Your task to perform on an android device: Open Reddit.com Image 0: 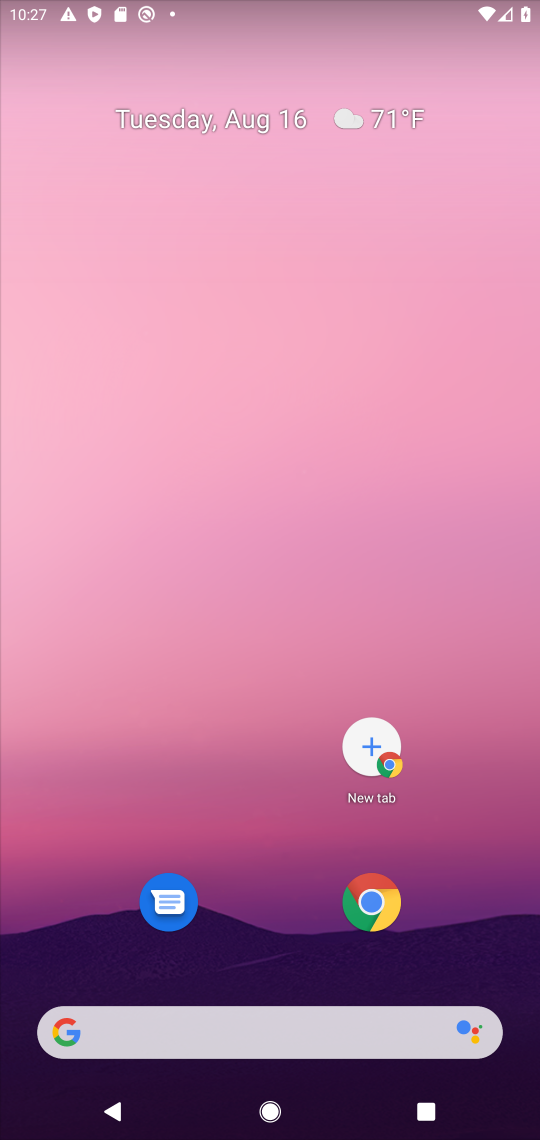
Step 0: drag from (331, 971) to (320, 64)
Your task to perform on an android device: Open Reddit.com Image 1: 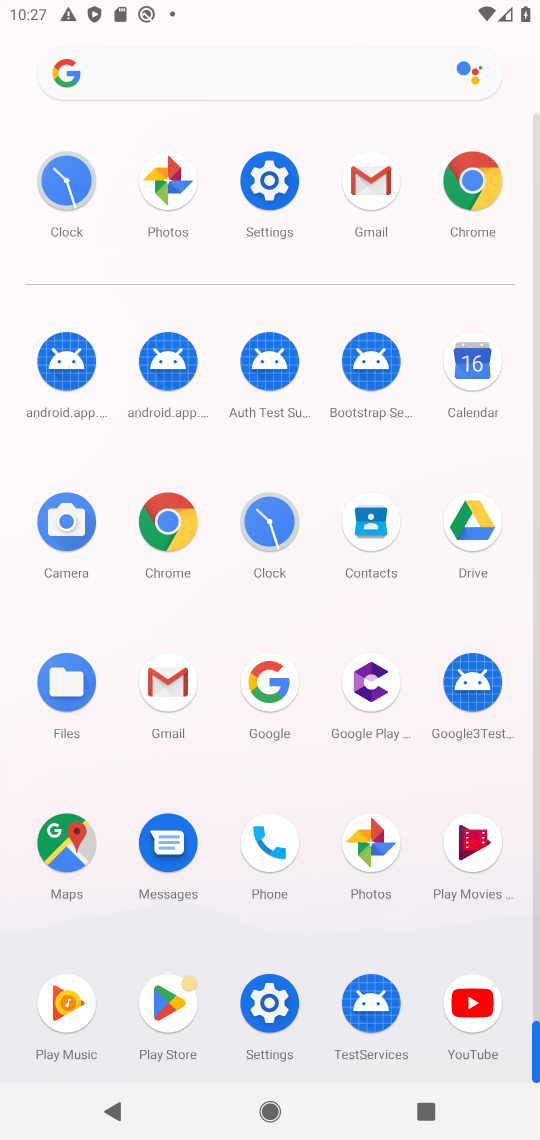
Step 1: click (154, 548)
Your task to perform on an android device: Open Reddit.com Image 2: 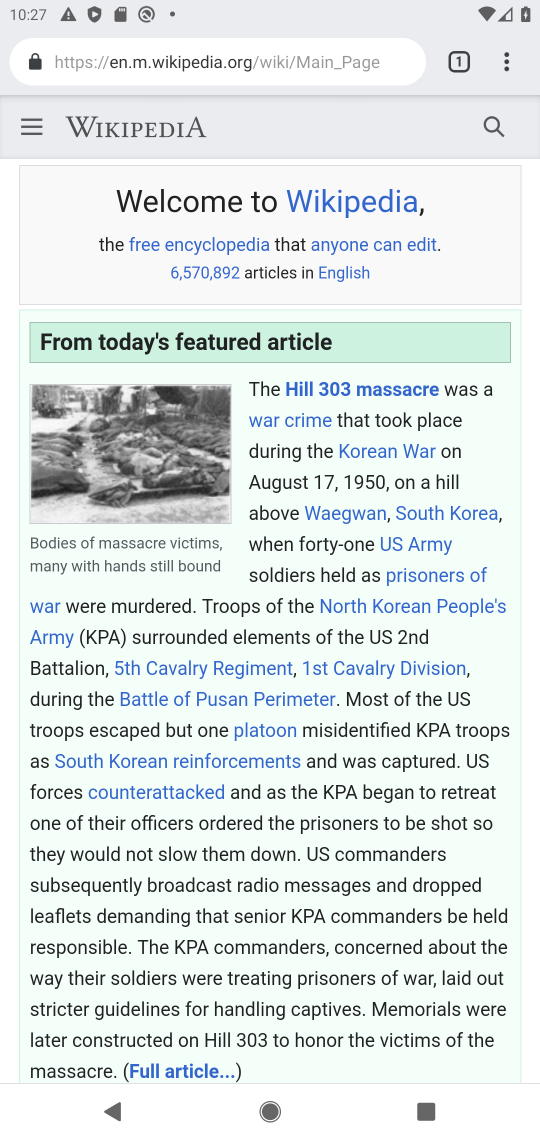
Step 2: click (363, 78)
Your task to perform on an android device: Open Reddit.com Image 3: 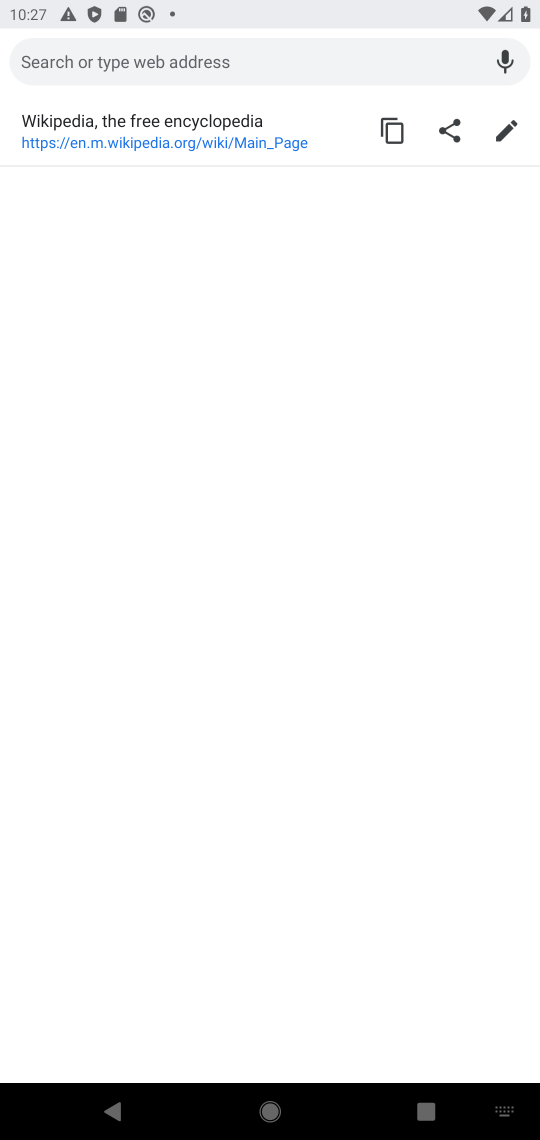
Step 3: click (312, 61)
Your task to perform on an android device: Open Reddit.com Image 4: 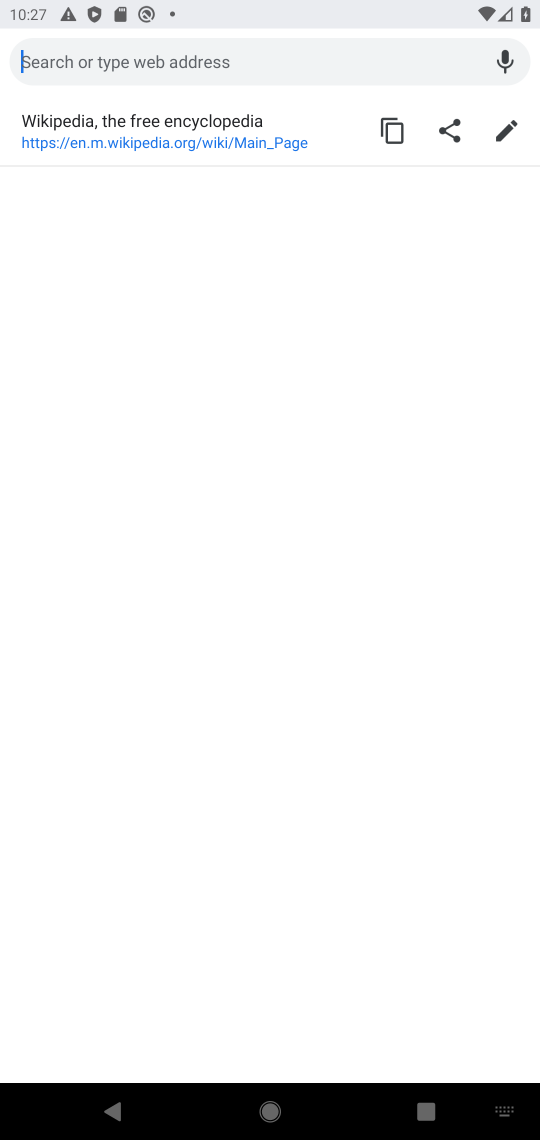
Step 4: click (415, 57)
Your task to perform on an android device: Open Reddit.com Image 5: 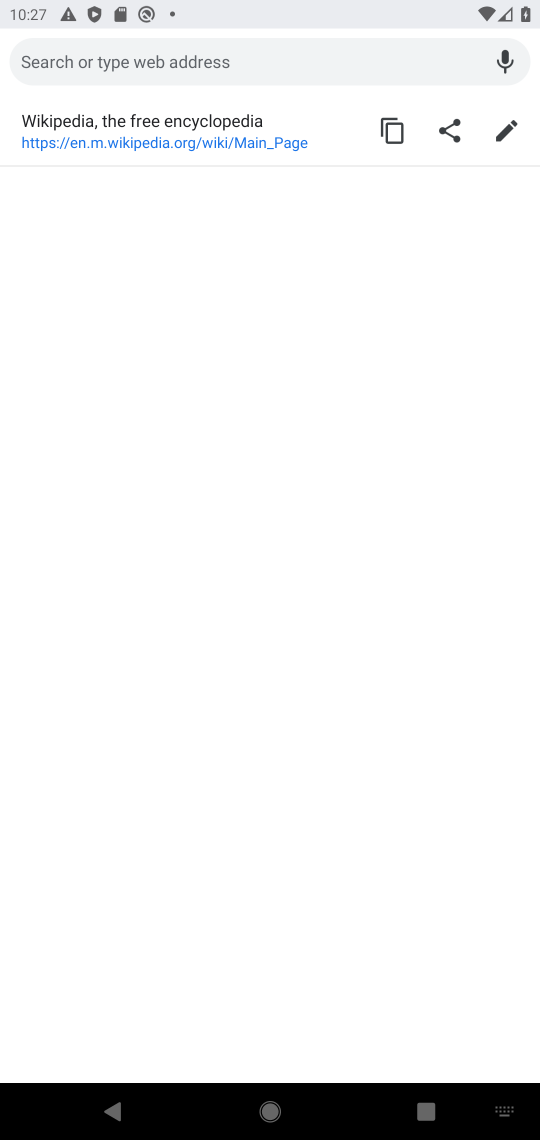
Step 5: click (162, 59)
Your task to perform on an android device: Open Reddit.com Image 6: 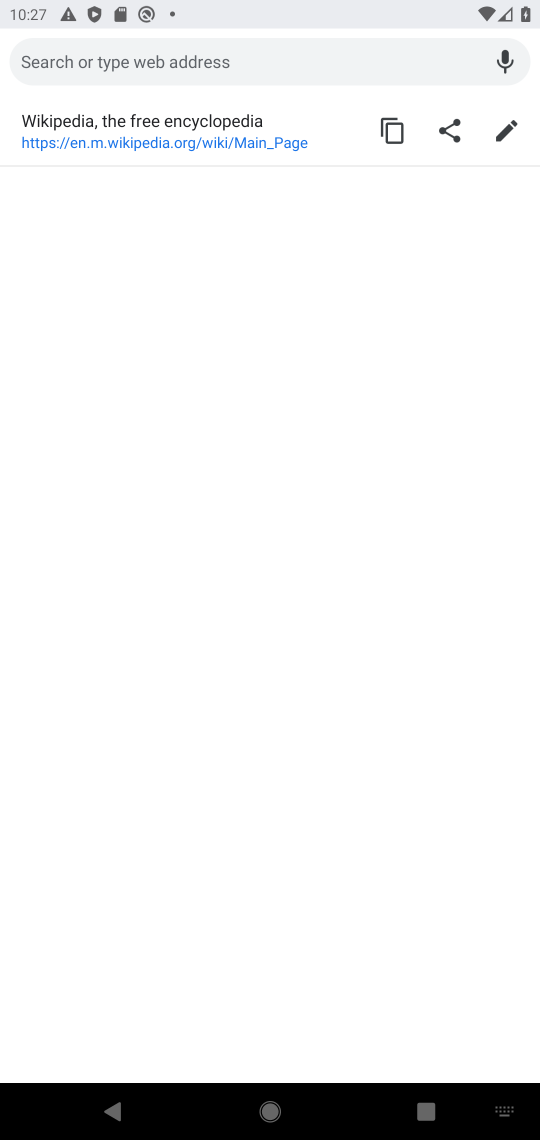
Step 6: type "Reddit.com"
Your task to perform on an android device: Open Reddit.com Image 7: 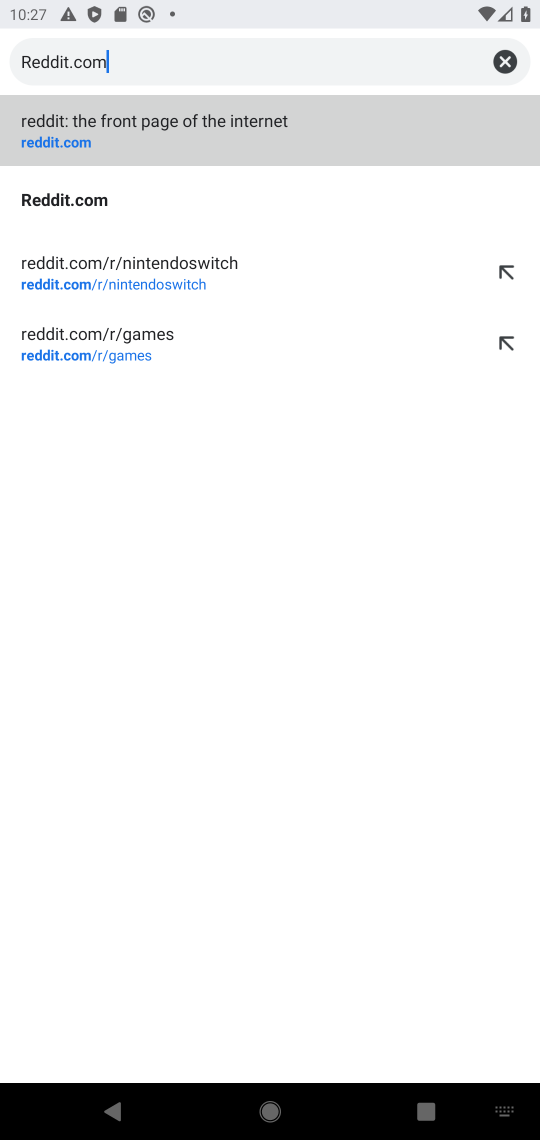
Step 7: click (72, 197)
Your task to perform on an android device: Open Reddit.com Image 8: 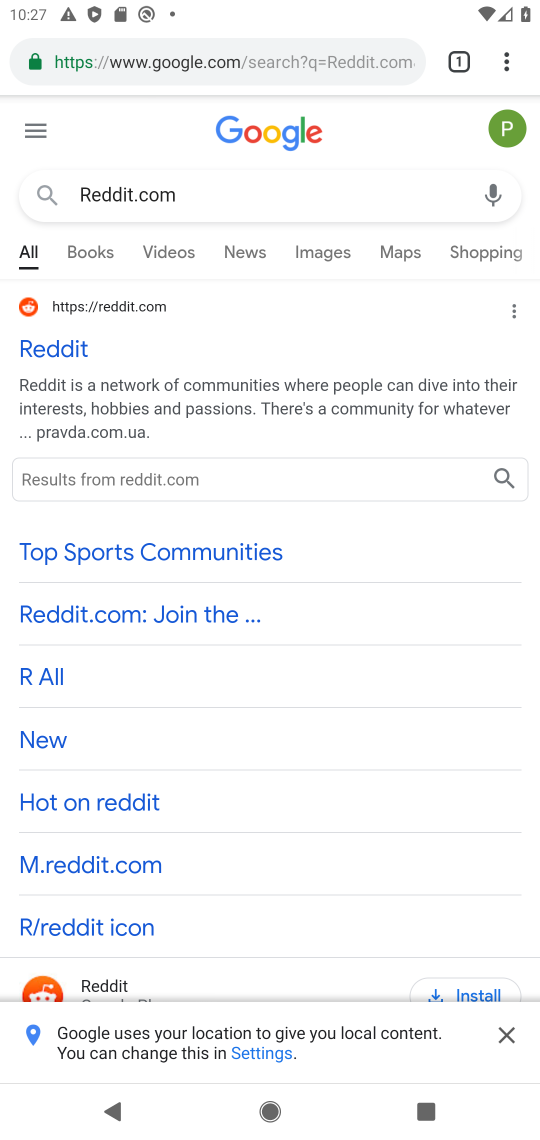
Step 8: click (75, 346)
Your task to perform on an android device: Open Reddit.com Image 9: 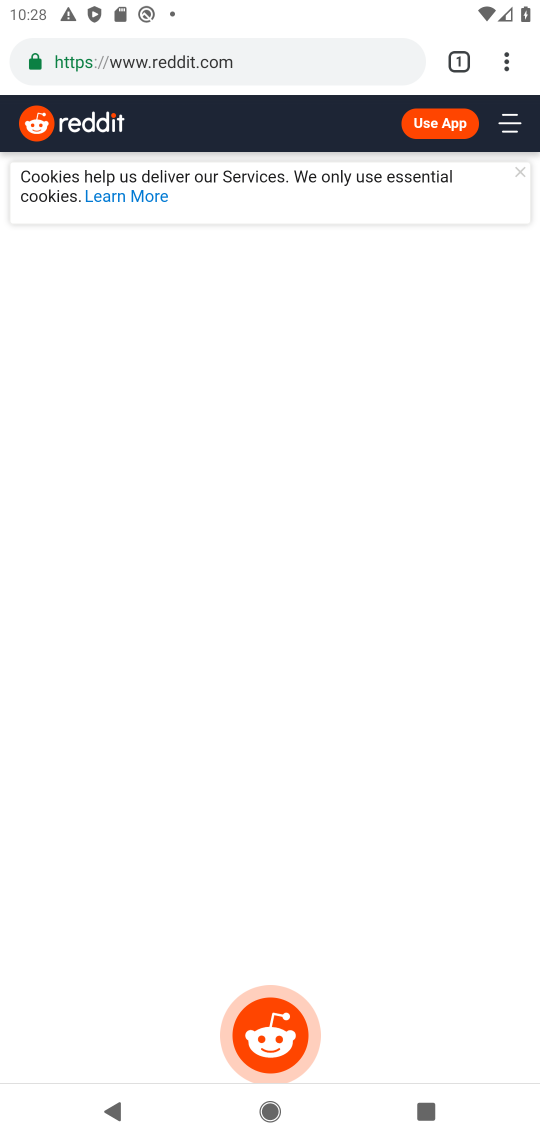
Step 9: task complete